Your task to perform on an android device: open device folders in google photos Image 0: 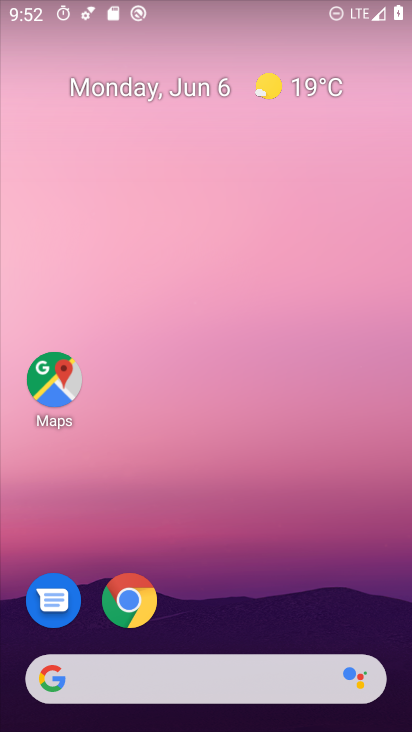
Step 0: drag from (298, 580) to (136, 5)
Your task to perform on an android device: open device folders in google photos Image 1: 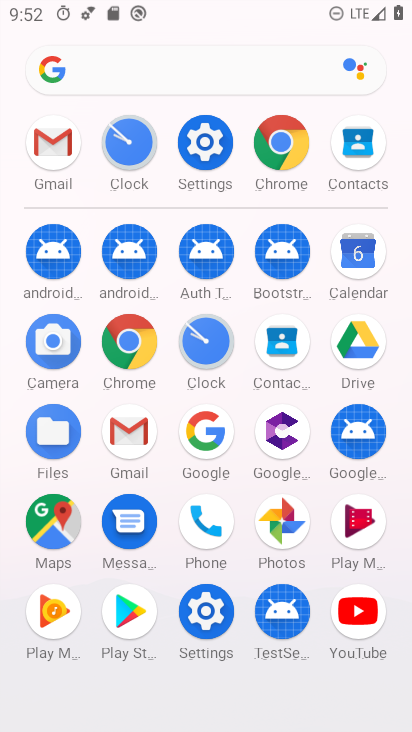
Step 1: click (291, 527)
Your task to perform on an android device: open device folders in google photos Image 2: 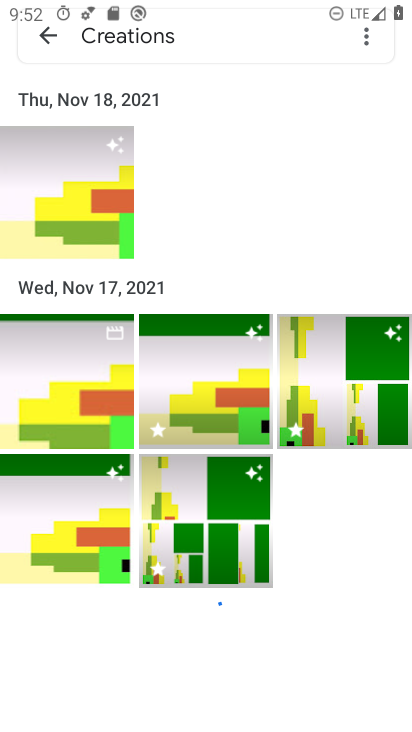
Step 2: click (44, 30)
Your task to perform on an android device: open device folders in google photos Image 3: 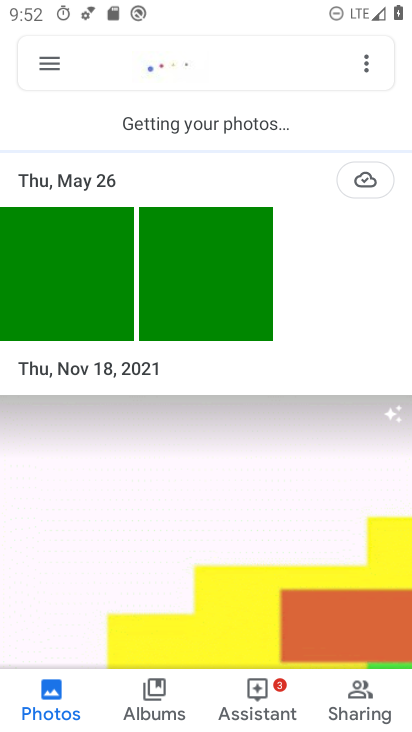
Step 3: click (56, 57)
Your task to perform on an android device: open device folders in google photos Image 4: 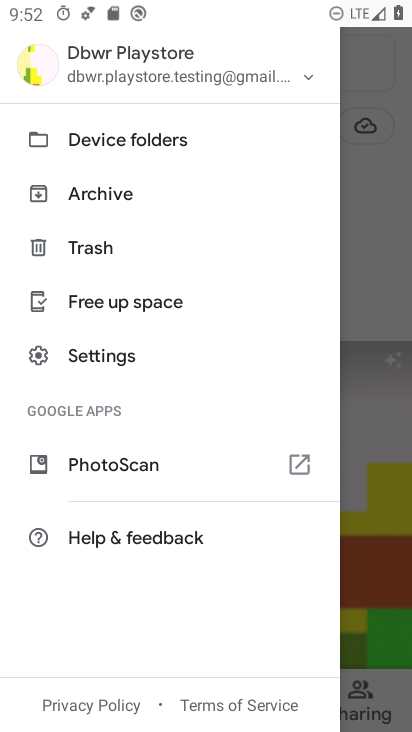
Step 4: click (123, 145)
Your task to perform on an android device: open device folders in google photos Image 5: 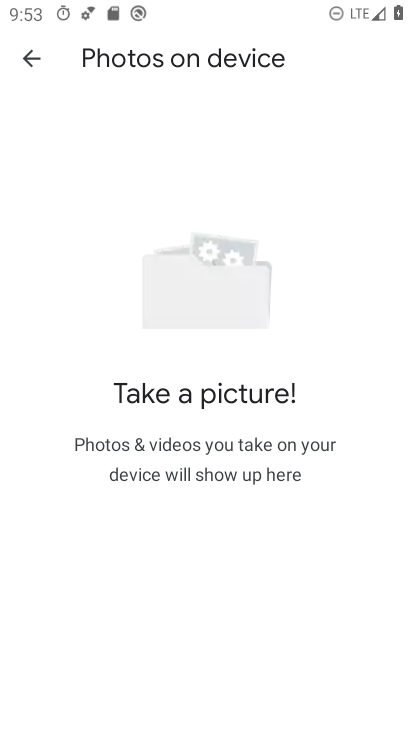
Step 5: task complete